Your task to perform on an android device: empty trash in google photos Image 0: 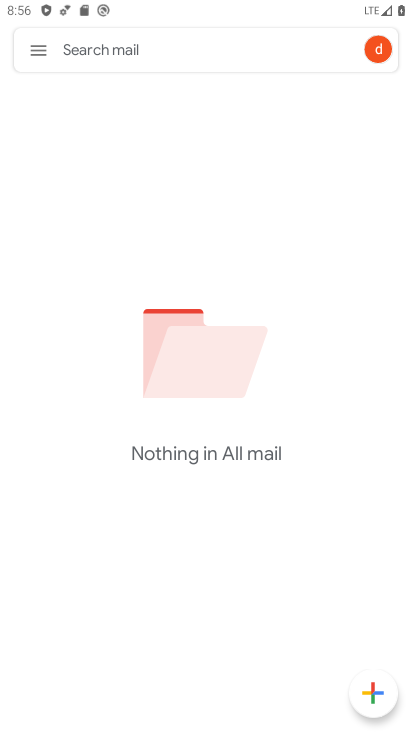
Step 0: press home button
Your task to perform on an android device: empty trash in google photos Image 1: 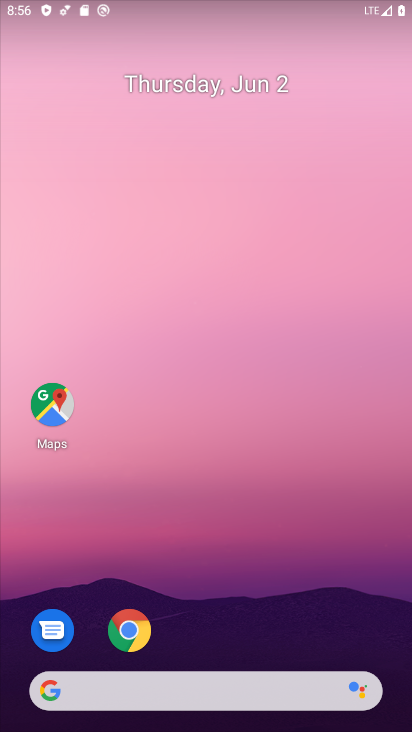
Step 1: drag from (193, 601) to (263, 0)
Your task to perform on an android device: empty trash in google photos Image 2: 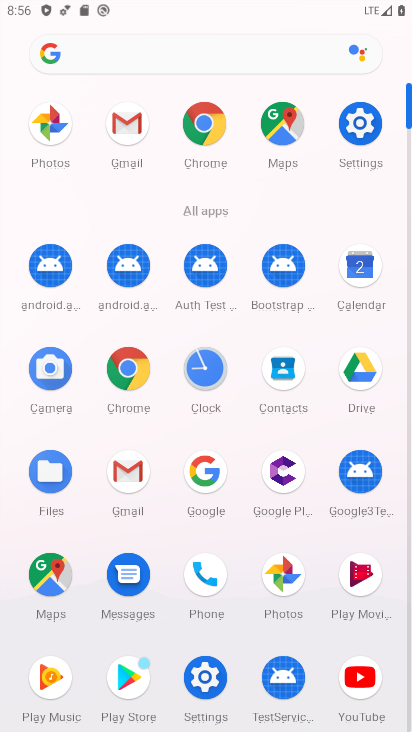
Step 2: click (290, 577)
Your task to perform on an android device: empty trash in google photos Image 3: 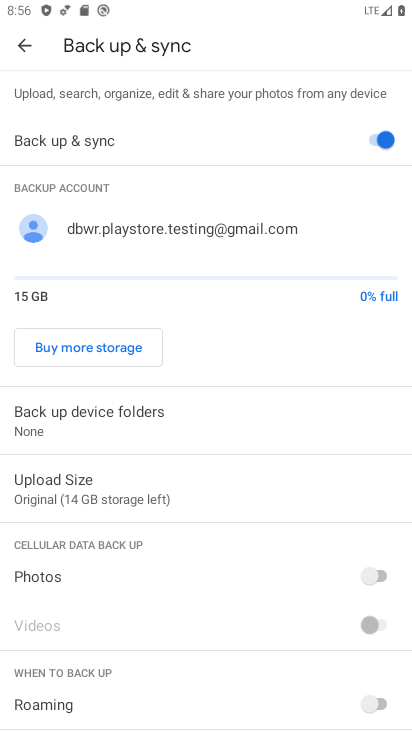
Step 3: press back button
Your task to perform on an android device: empty trash in google photos Image 4: 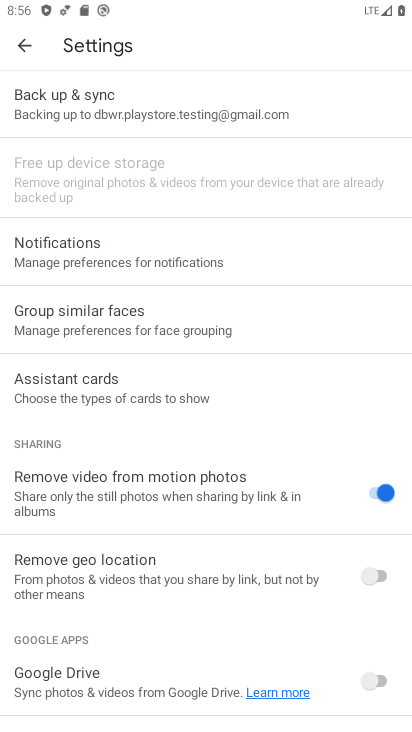
Step 4: press back button
Your task to perform on an android device: empty trash in google photos Image 5: 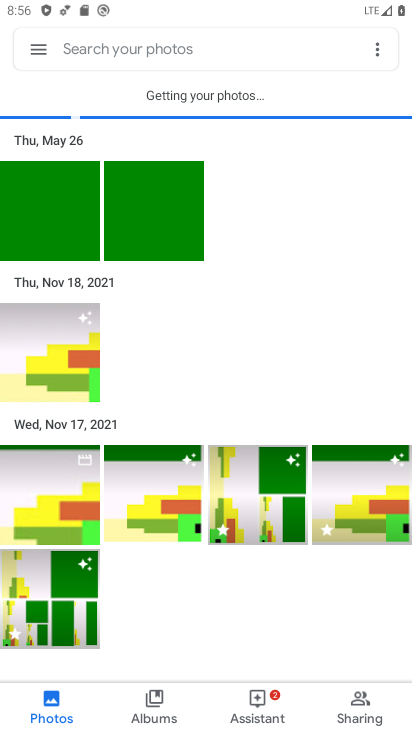
Step 5: click (40, 48)
Your task to perform on an android device: empty trash in google photos Image 6: 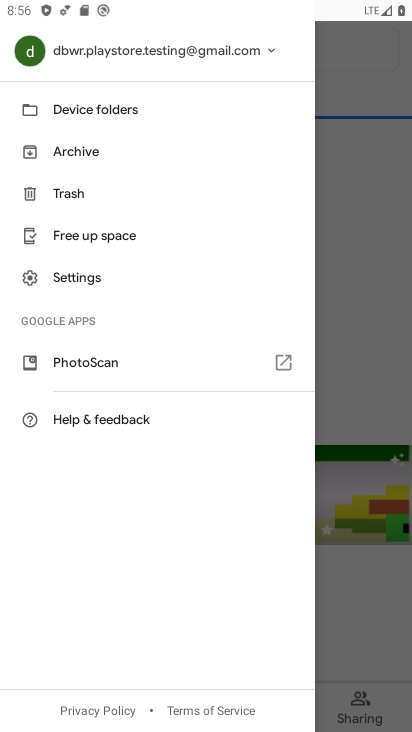
Step 6: click (81, 188)
Your task to perform on an android device: empty trash in google photos Image 7: 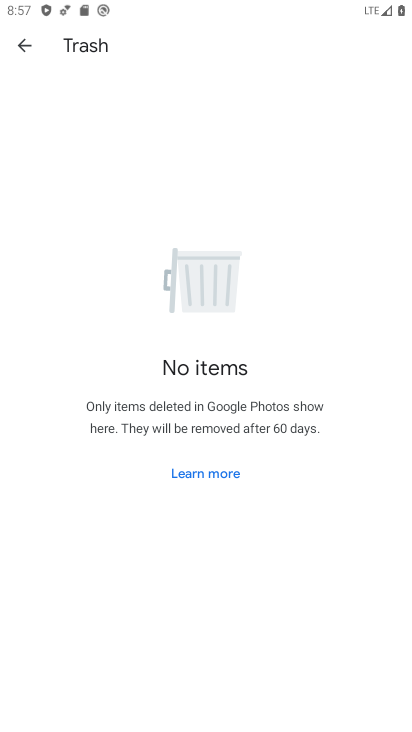
Step 7: task complete